Your task to perform on an android device: Open Amazon Image 0: 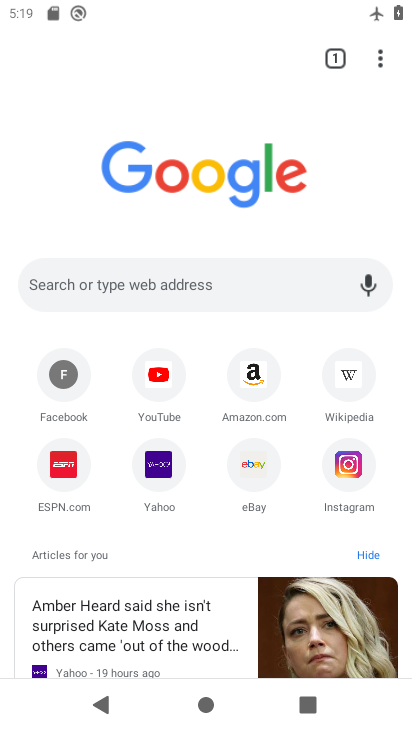
Step 0: click (260, 382)
Your task to perform on an android device: Open Amazon Image 1: 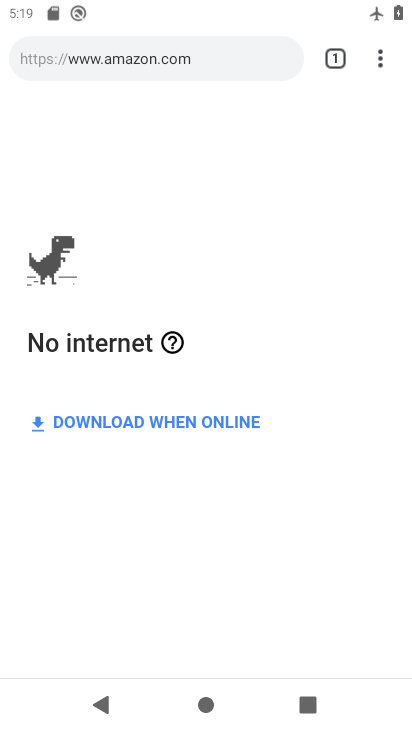
Step 1: task complete